Your task to perform on an android device: Open calendar and show me the second week of next month Image 0: 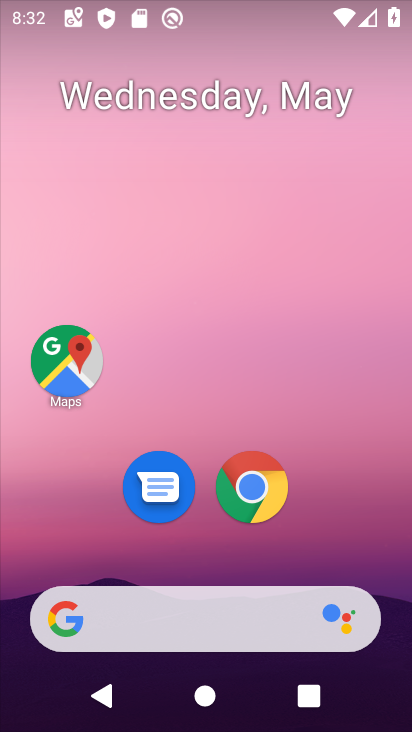
Step 0: drag from (208, 552) to (234, 87)
Your task to perform on an android device: Open calendar and show me the second week of next month Image 1: 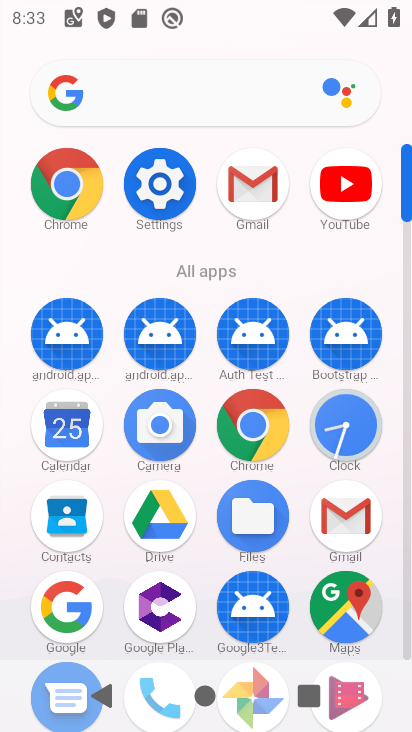
Step 1: click (70, 415)
Your task to perform on an android device: Open calendar and show me the second week of next month Image 2: 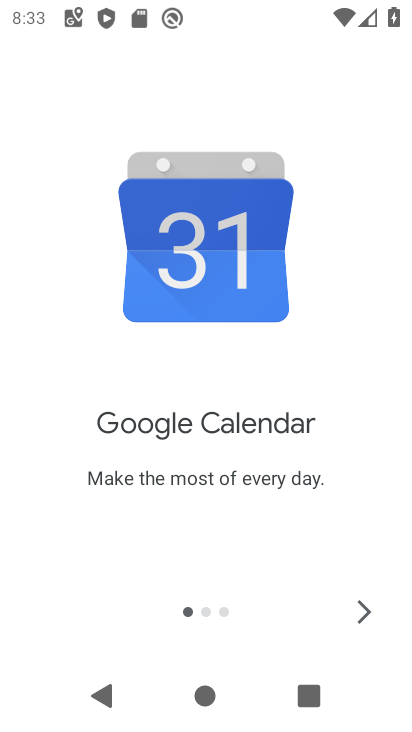
Step 2: click (349, 617)
Your task to perform on an android device: Open calendar and show me the second week of next month Image 3: 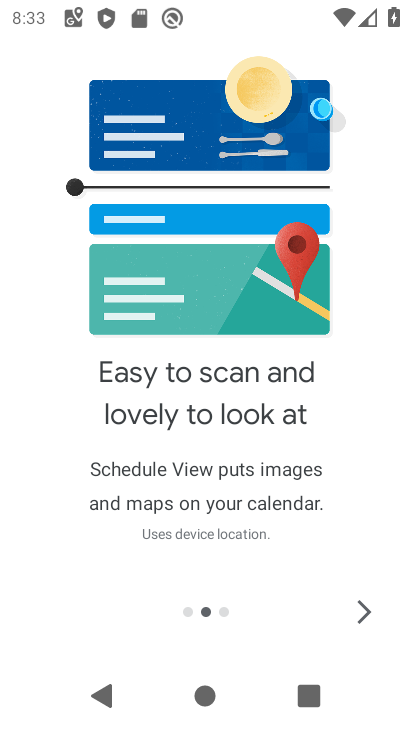
Step 3: click (357, 609)
Your task to perform on an android device: Open calendar and show me the second week of next month Image 4: 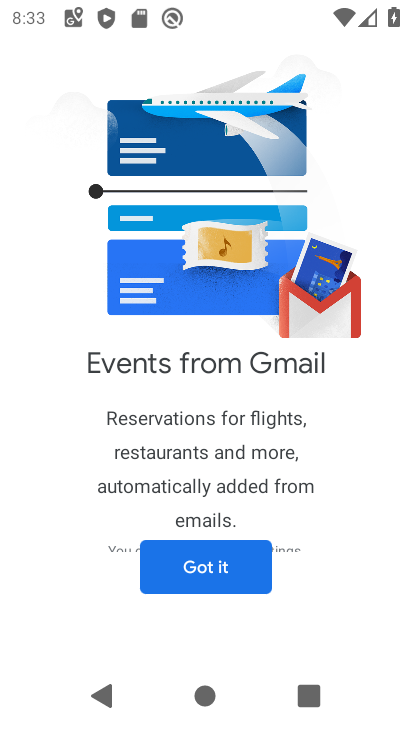
Step 4: click (211, 563)
Your task to perform on an android device: Open calendar and show me the second week of next month Image 5: 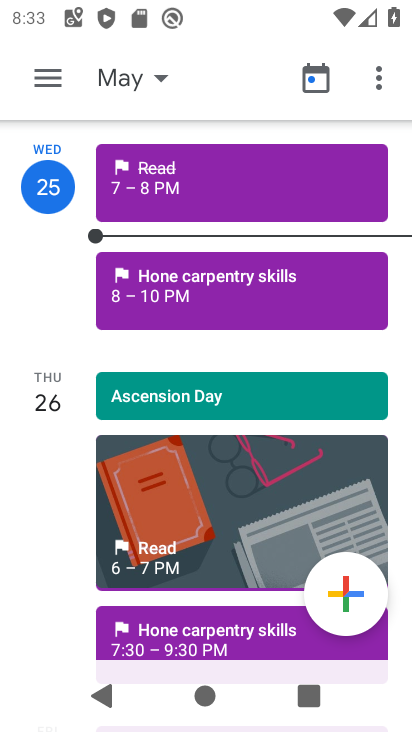
Step 5: click (161, 73)
Your task to perform on an android device: Open calendar and show me the second week of next month Image 6: 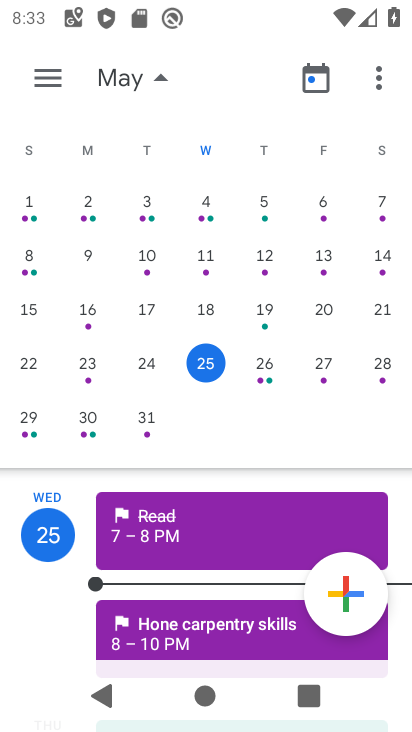
Step 6: drag from (368, 310) to (0, 308)
Your task to perform on an android device: Open calendar and show me the second week of next month Image 7: 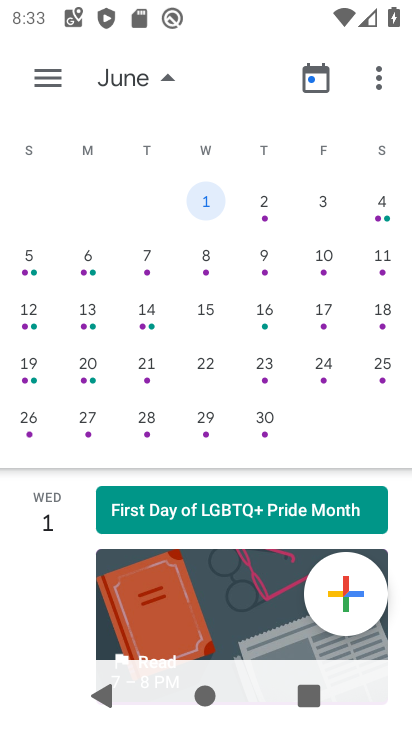
Step 7: click (27, 254)
Your task to perform on an android device: Open calendar and show me the second week of next month Image 8: 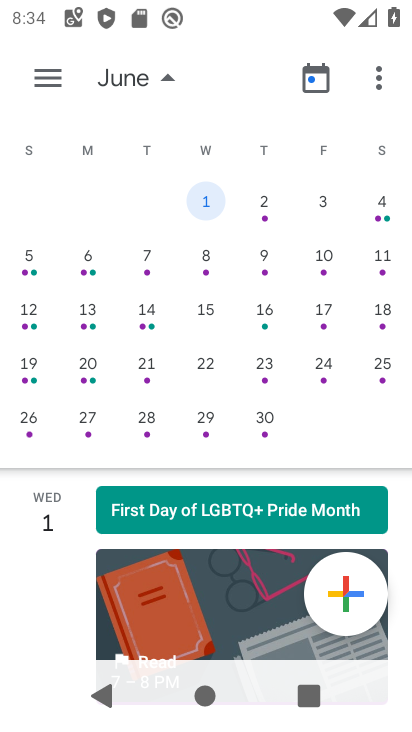
Step 8: click (29, 266)
Your task to perform on an android device: Open calendar and show me the second week of next month Image 9: 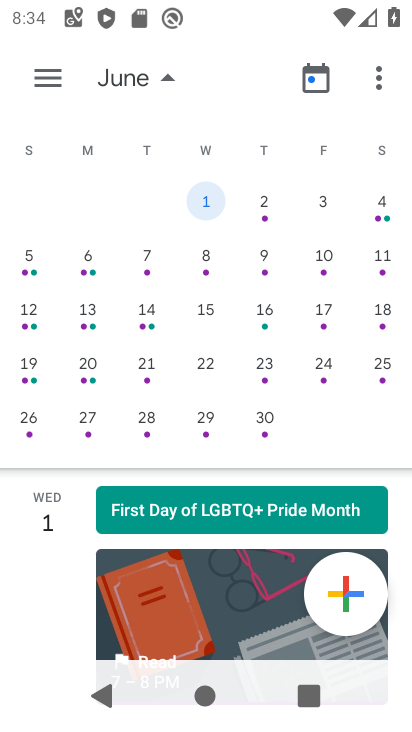
Step 9: click (31, 260)
Your task to perform on an android device: Open calendar and show me the second week of next month Image 10: 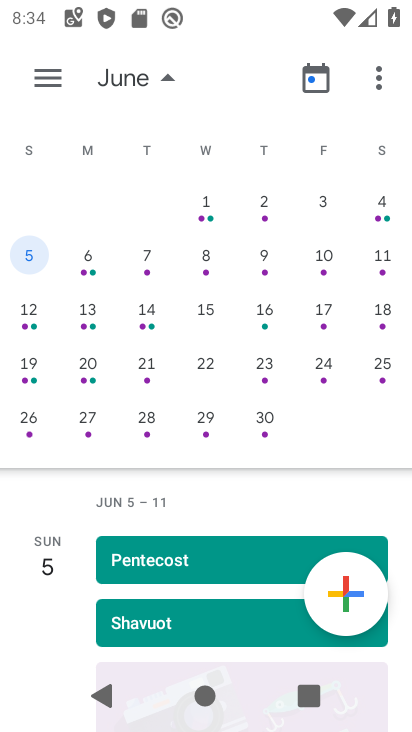
Step 10: click (163, 78)
Your task to perform on an android device: Open calendar and show me the second week of next month Image 11: 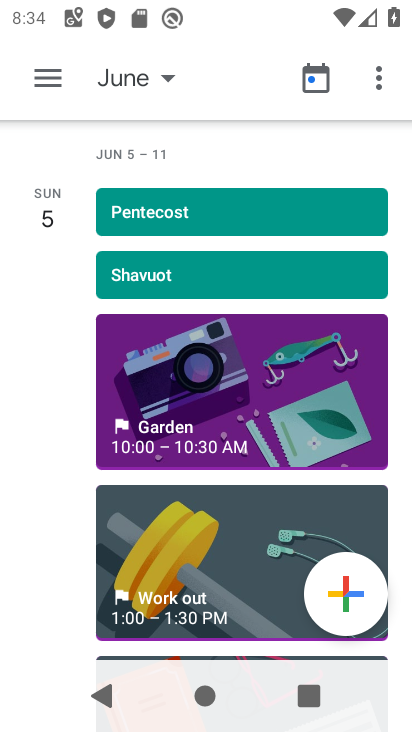
Step 11: task complete